Your task to perform on an android device: Go to Wikipedia Image 0: 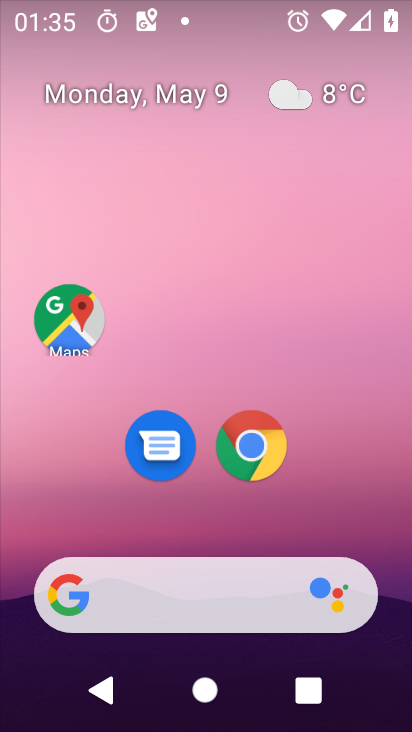
Step 0: click (258, 449)
Your task to perform on an android device: Go to Wikipedia Image 1: 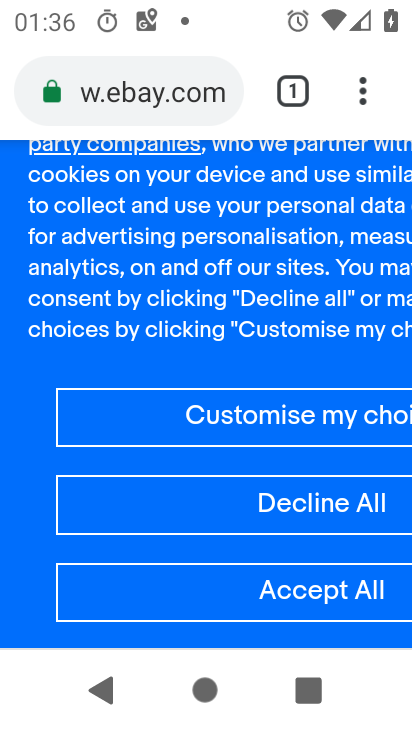
Step 1: click (92, 99)
Your task to perform on an android device: Go to Wikipedia Image 2: 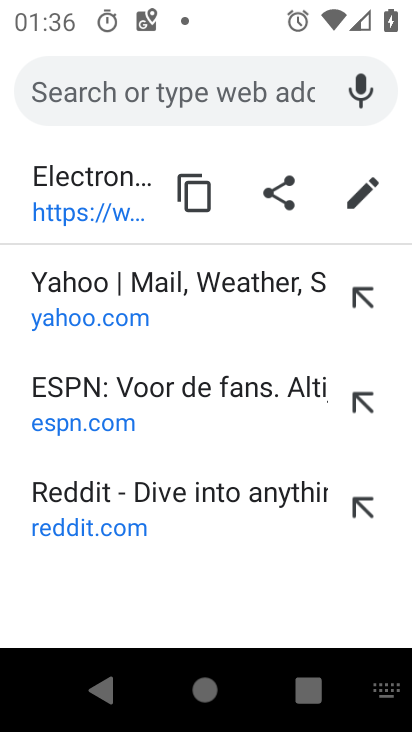
Step 2: type "wikipedia"
Your task to perform on an android device: Go to Wikipedia Image 3: 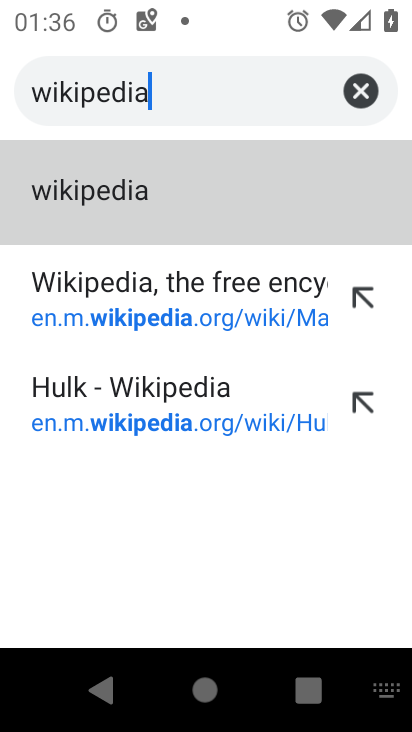
Step 3: click (112, 196)
Your task to perform on an android device: Go to Wikipedia Image 4: 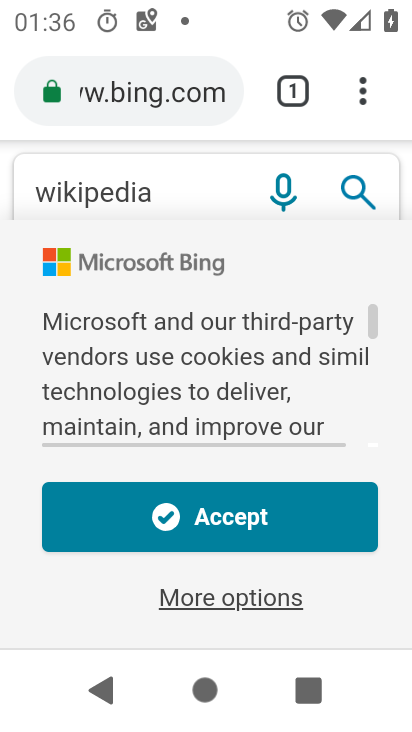
Step 4: click (224, 522)
Your task to perform on an android device: Go to Wikipedia Image 5: 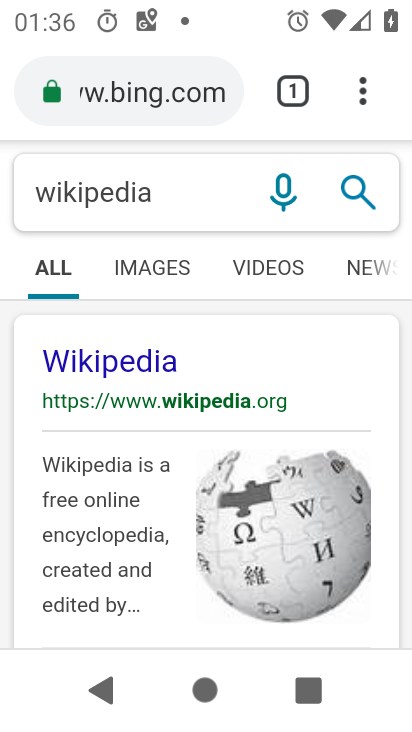
Step 5: task complete